Your task to perform on an android device: What's the weather going to be this weekend? Image 0: 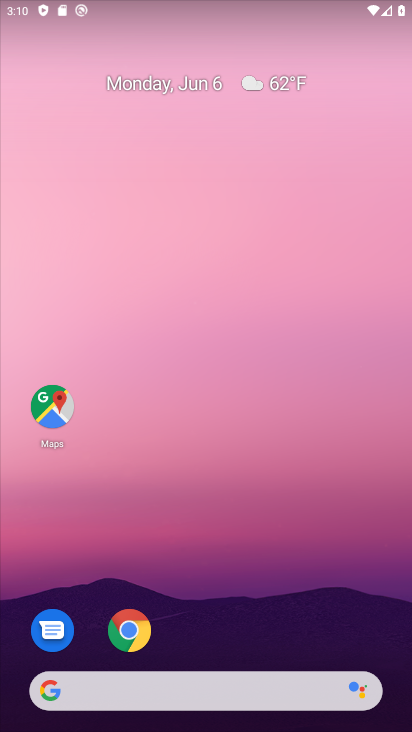
Step 0: press home button
Your task to perform on an android device: What's the weather going to be this weekend? Image 1: 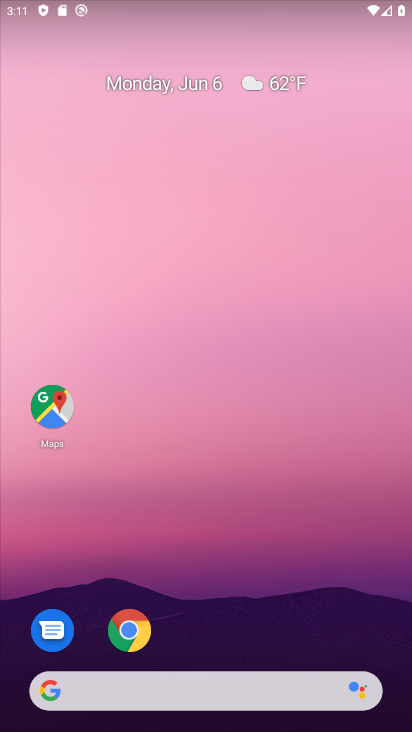
Step 1: click (141, 634)
Your task to perform on an android device: What's the weather going to be this weekend? Image 2: 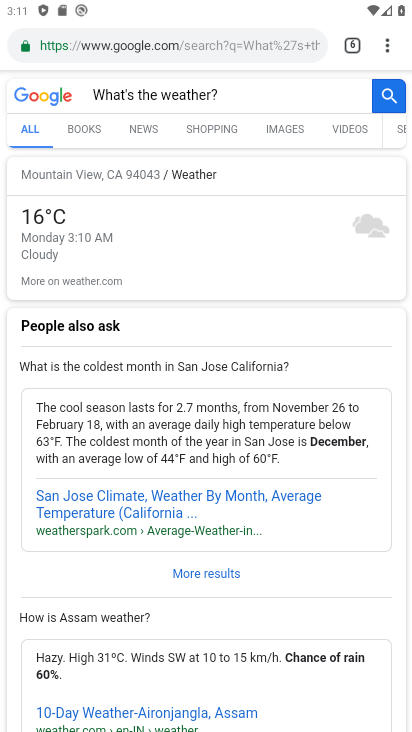
Step 2: click (182, 42)
Your task to perform on an android device: What's the weather going to be this weekend? Image 3: 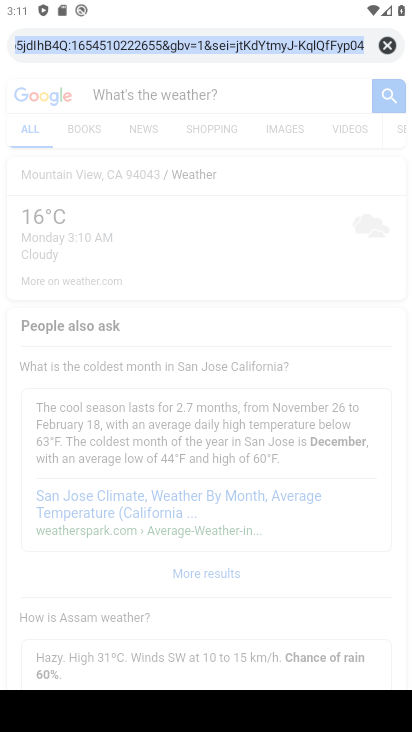
Step 3: type " What's the weather going to be this weekend?"
Your task to perform on an android device: What's the weather going to be this weekend? Image 4: 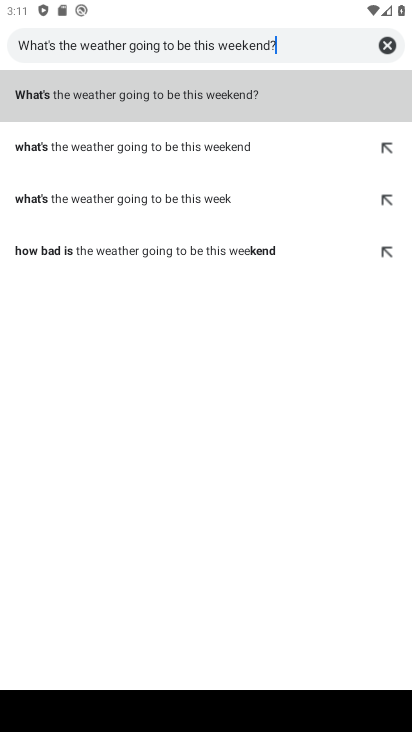
Step 4: type ""
Your task to perform on an android device: What's the weather going to be this weekend? Image 5: 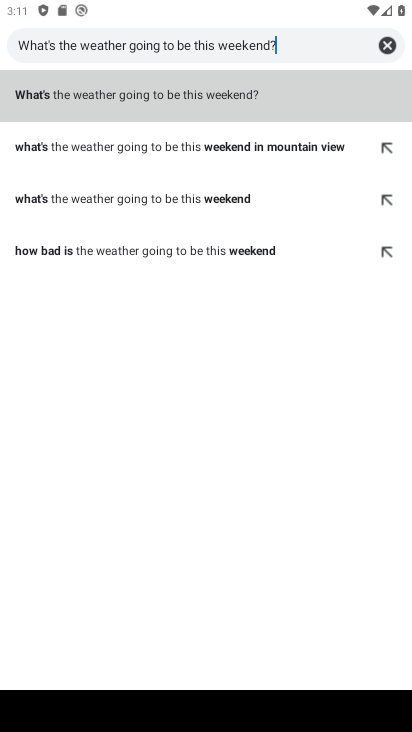
Step 5: click (116, 92)
Your task to perform on an android device: What's the weather going to be this weekend? Image 6: 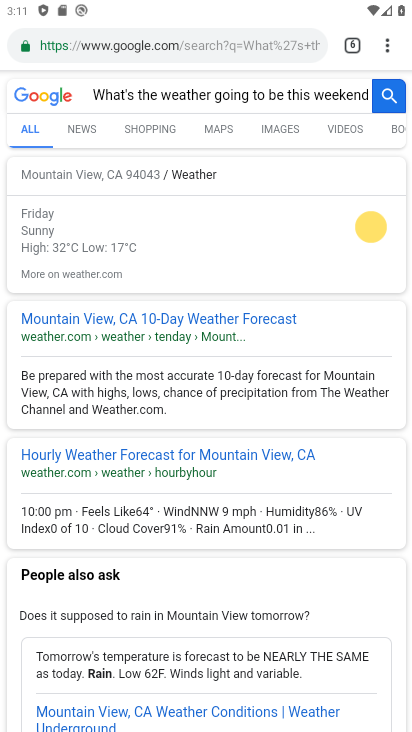
Step 6: task complete